Your task to perform on an android device: manage bookmarks in the chrome app Image 0: 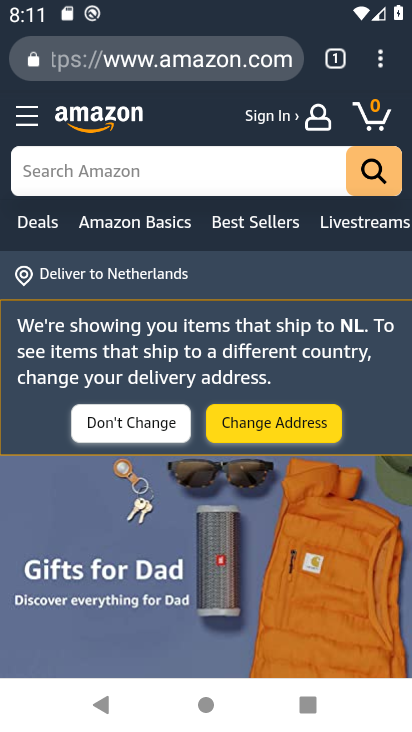
Step 0: press back button
Your task to perform on an android device: manage bookmarks in the chrome app Image 1: 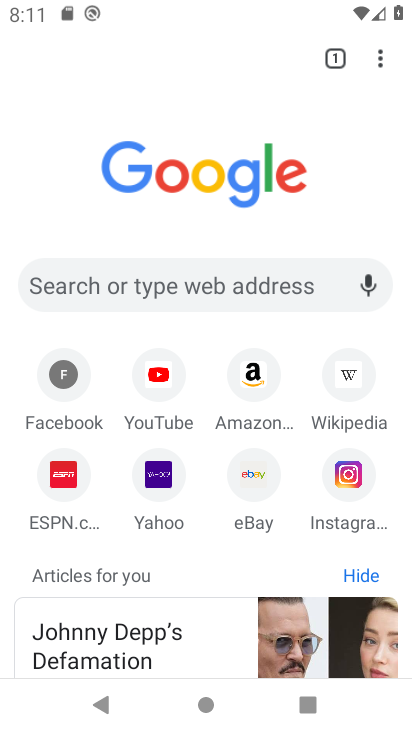
Step 1: drag from (375, 66) to (187, 209)
Your task to perform on an android device: manage bookmarks in the chrome app Image 2: 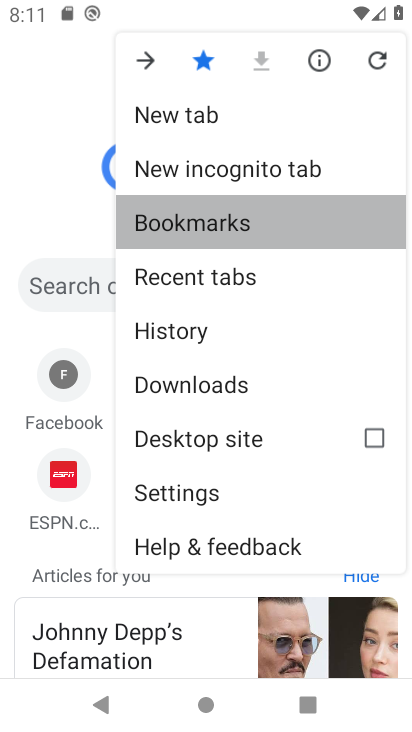
Step 2: click (191, 203)
Your task to perform on an android device: manage bookmarks in the chrome app Image 3: 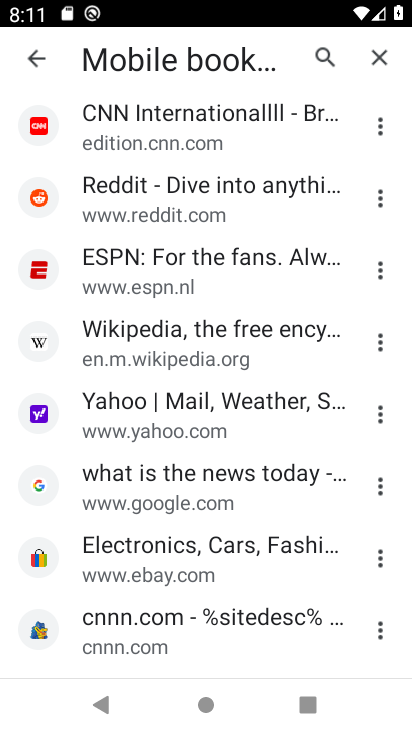
Step 3: click (378, 126)
Your task to perform on an android device: manage bookmarks in the chrome app Image 4: 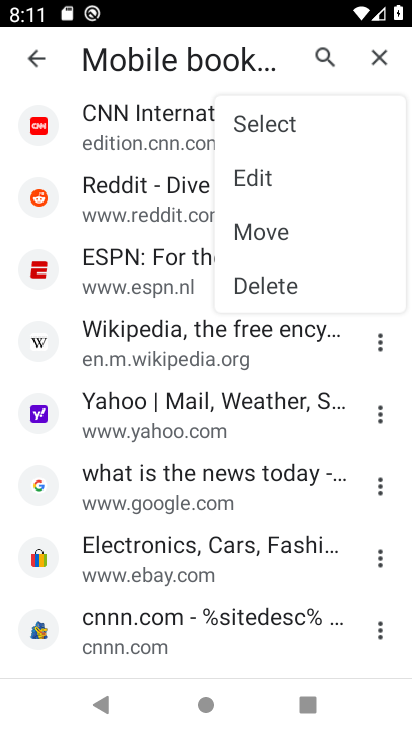
Step 4: click (277, 286)
Your task to perform on an android device: manage bookmarks in the chrome app Image 5: 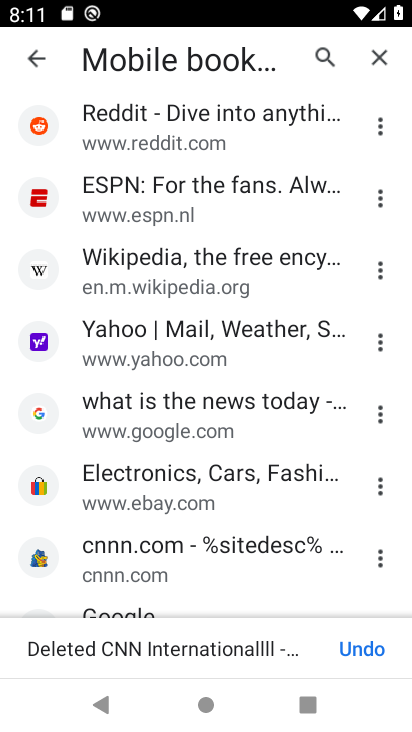
Step 5: task complete